Your task to perform on an android device: Open Chrome and go to the settings page Image 0: 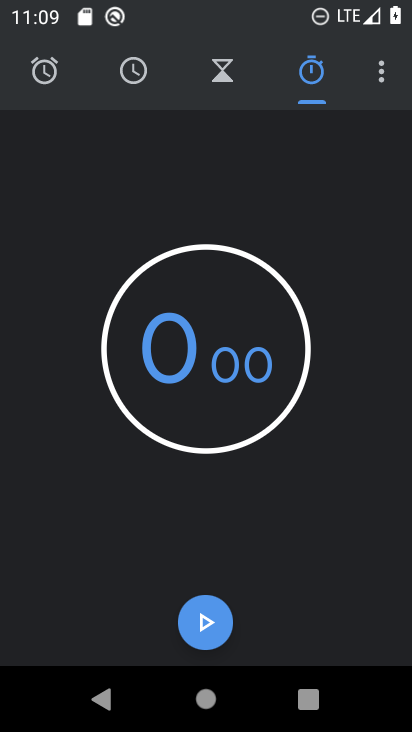
Step 0: press home button
Your task to perform on an android device: Open Chrome and go to the settings page Image 1: 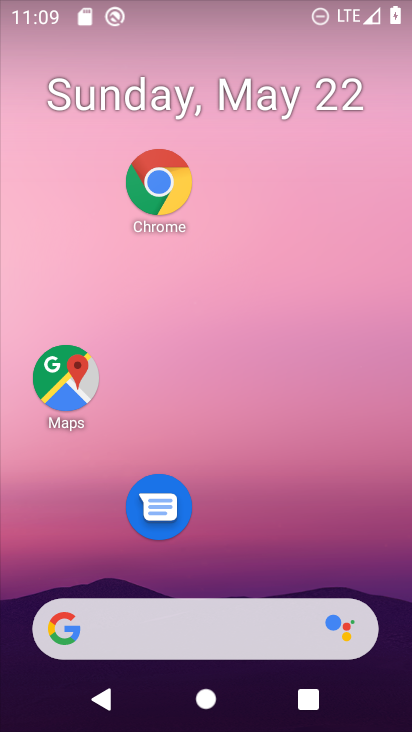
Step 1: click (151, 167)
Your task to perform on an android device: Open Chrome and go to the settings page Image 2: 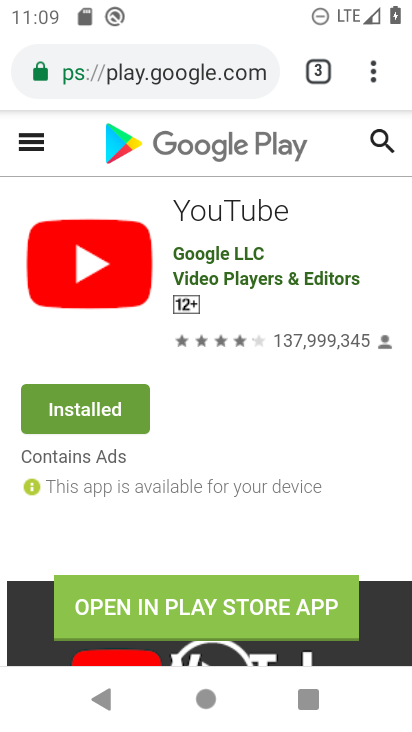
Step 2: click (367, 76)
Your task to perform on an android device: Open Chrome and go to the settings page Image 3: 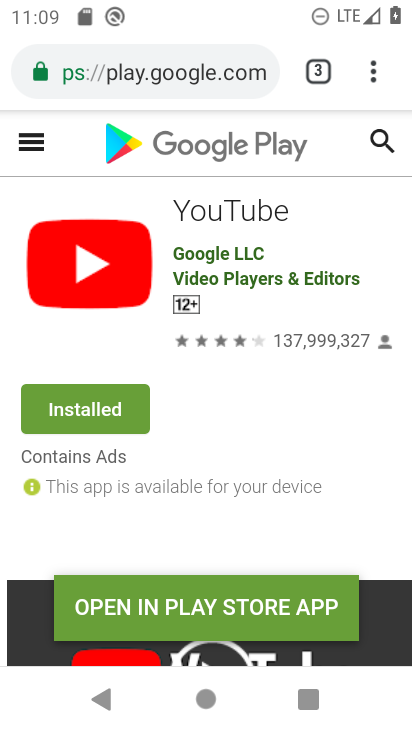
Step 3: click (381, 70)
Your task to perform on an android device: Open Chrome and go to the settings page Image 4: 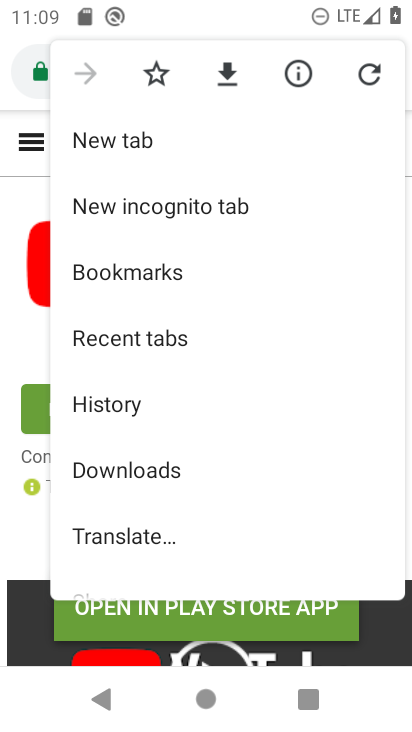
Step 4: drag from (220, 573) to (174, 104)
Your task to perform on an android device: Open Chrome and go to the settings page Image 5: 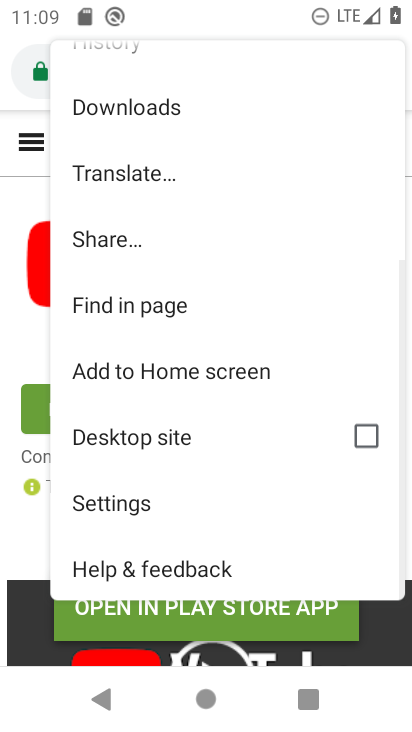
Step 5: click (178, 502)
Your task to perform on an android device: Open Chrome and go to the settings page Image 6: 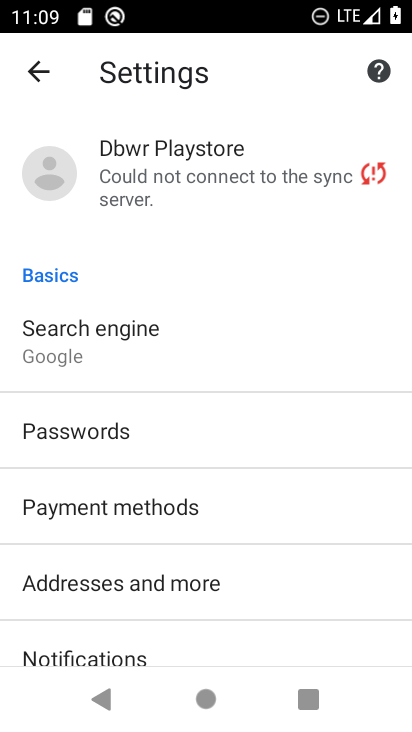
Step 6: task complete